Your task to perform on an android device: turn off sleep mode Image 0: 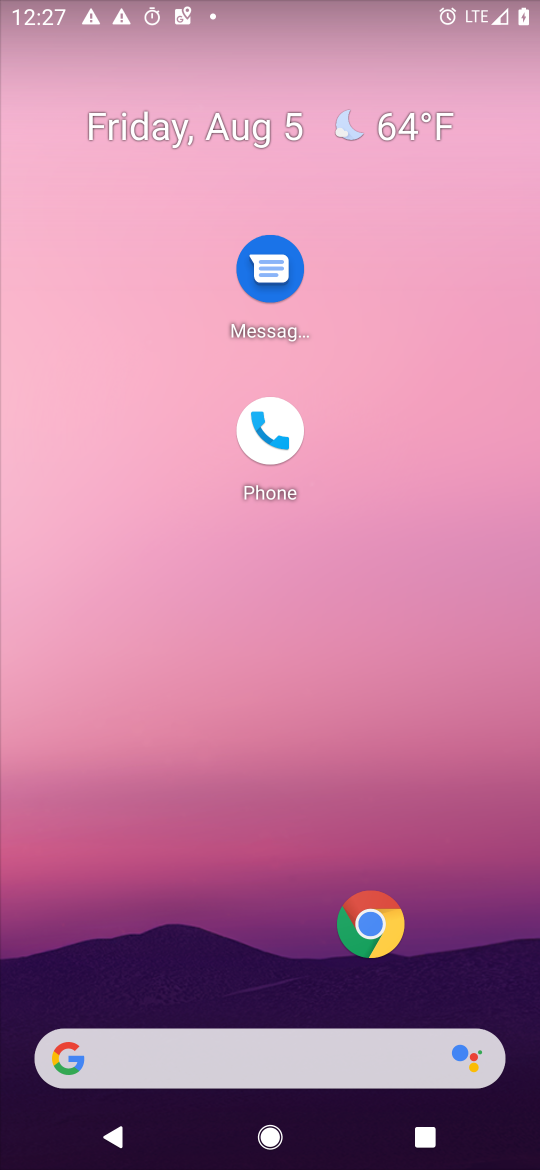
Step 0: drag from (236, 950) to (203, 121)
Your task to perform on an android device: turn off sleep mode Image 1: 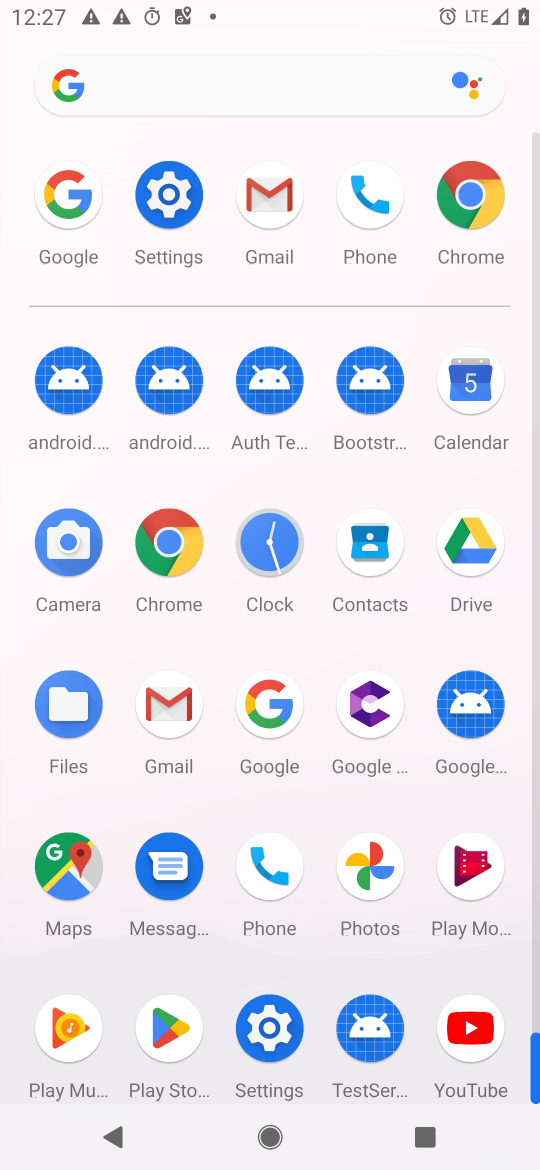
Step 1: click (168, 173)
Your task to perform on an android device: turn off sleep mode Image 2: 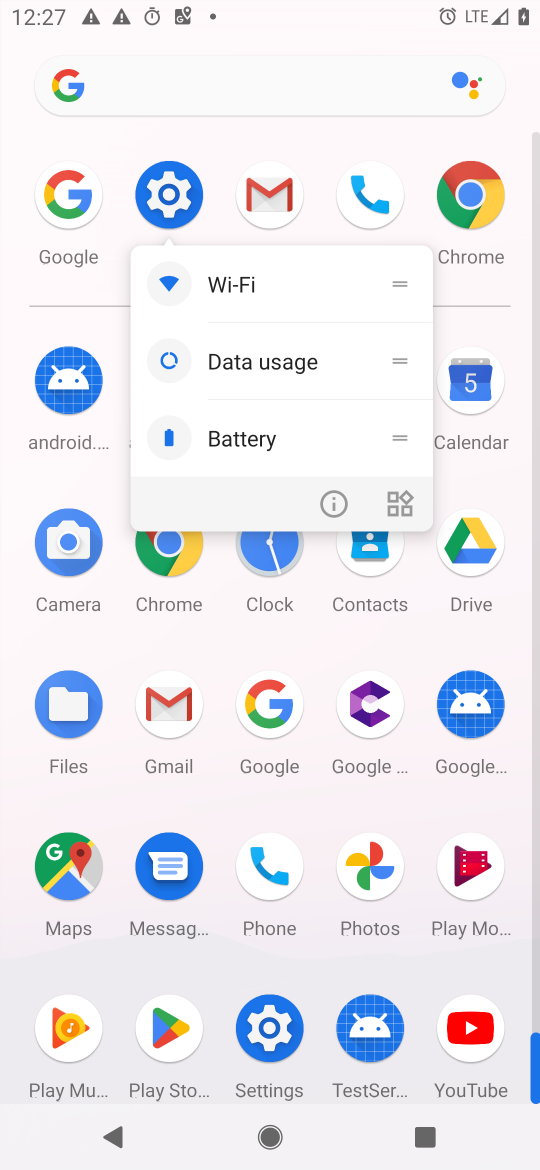
Step 2: click (341, 500)
Your task to perform on an android device: turn off sleep mode Image 3: 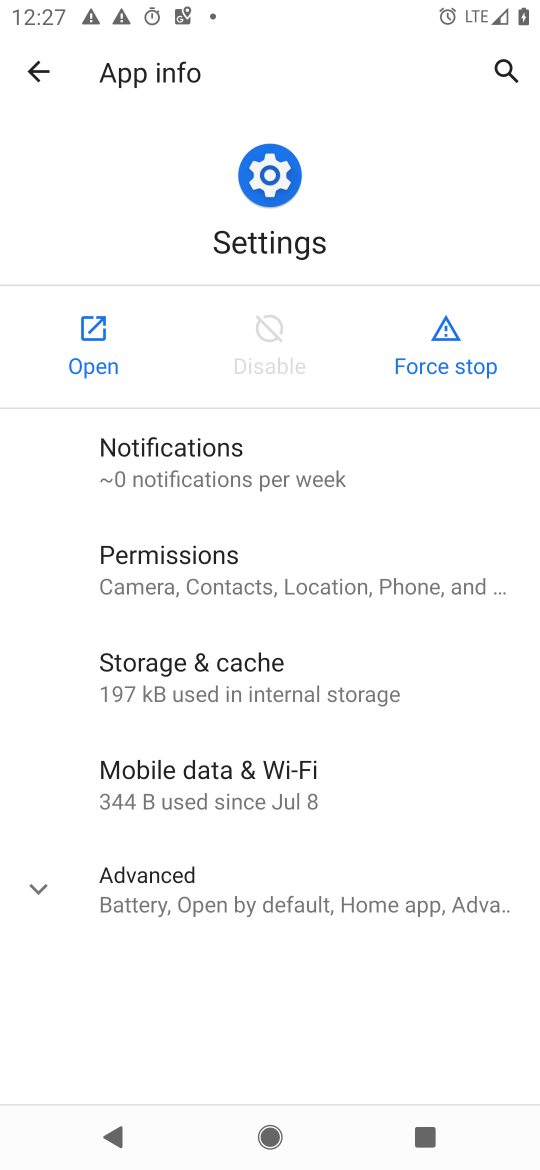
Step 3: click (72, 340)
Your task to perform on an android device: turn off sleep mode Image 4: 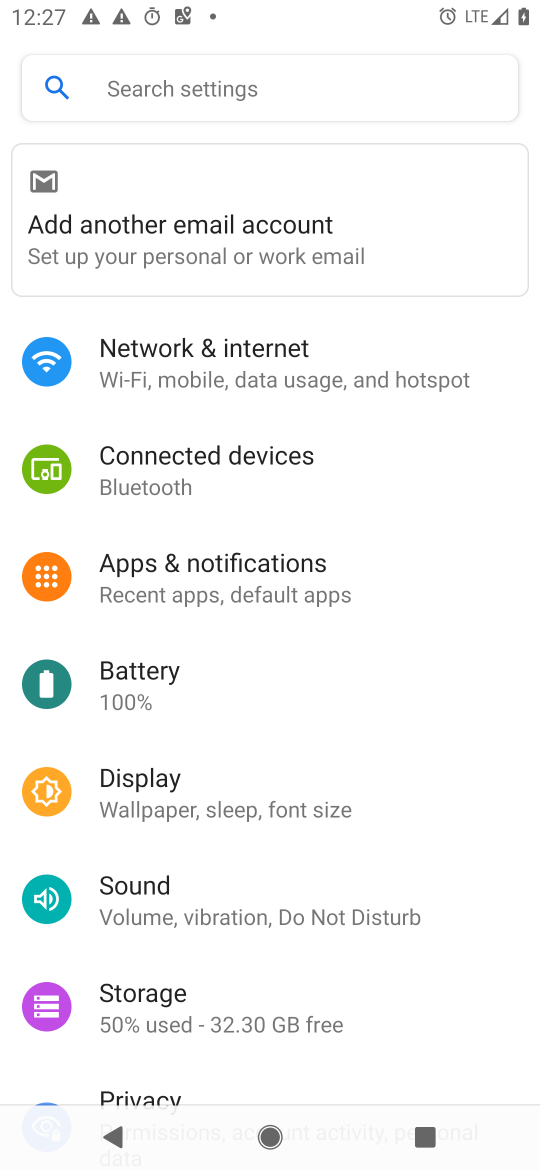
Step 4: click (205, 783)
Your task to perform on an android device: turn off sleep mode Image 5: 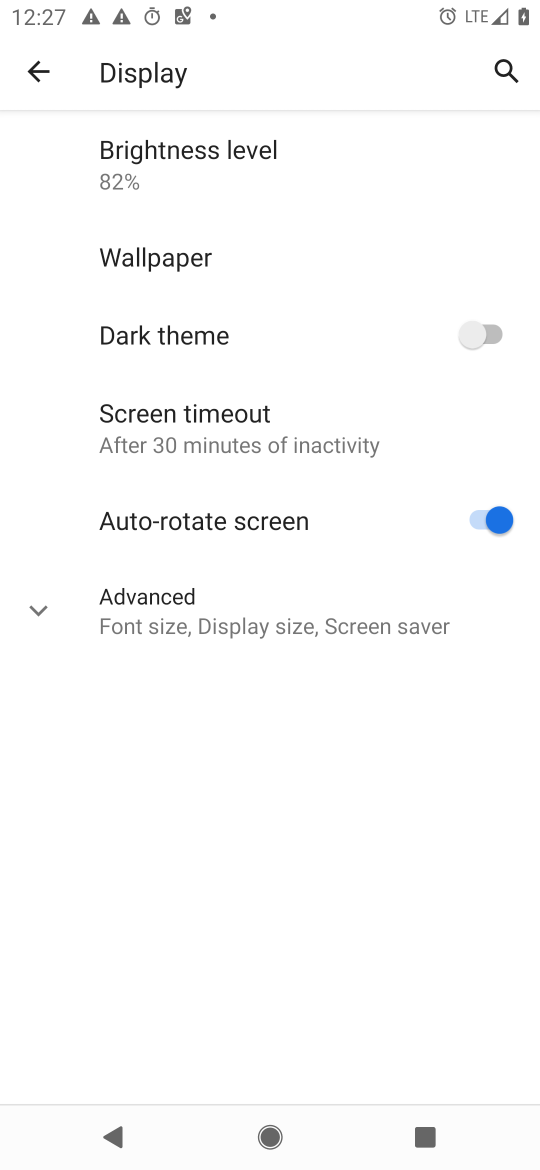
Step 5: click (287, 441)
Your task to perform on an android device: turn off sleep mode Image 6: 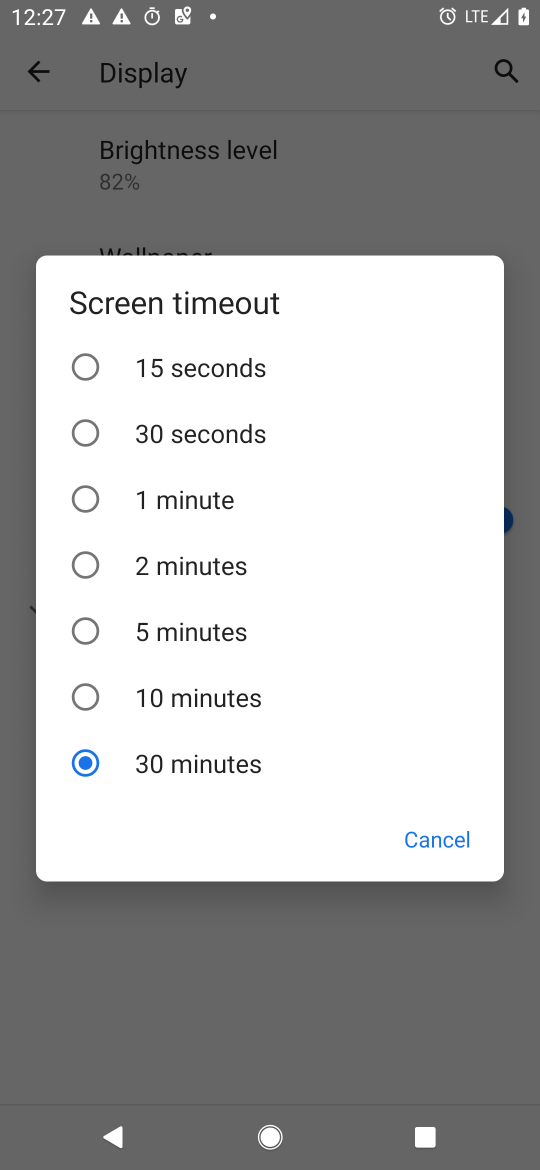
Step 6: task complete